Your task to perform on an android device: Go to CNN.com Image 0: 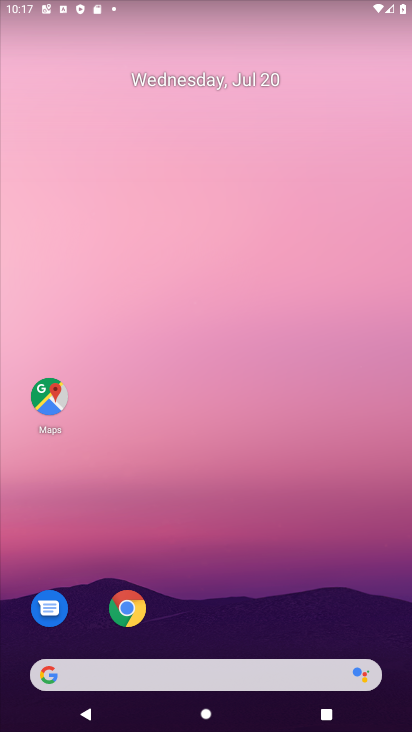
Step 0: drag from (283, 249) to (331, 8)
Your task to perform on an android device: Go to CNN.com Image 1: 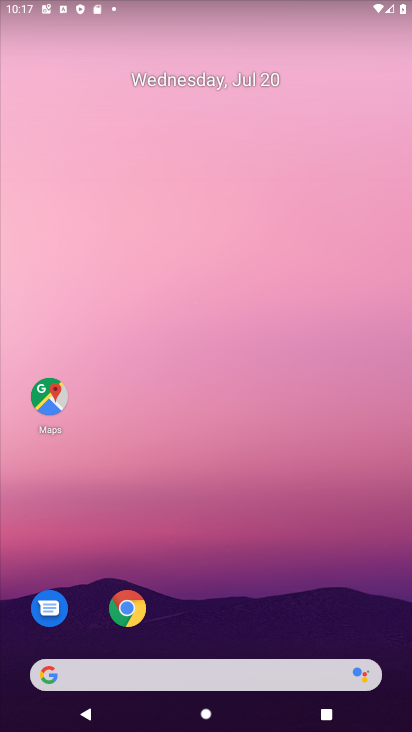
Step 1: drag from (282, 610) to (275, 41)
Your task to perform on an android device: Go to CNN.com Image 2: 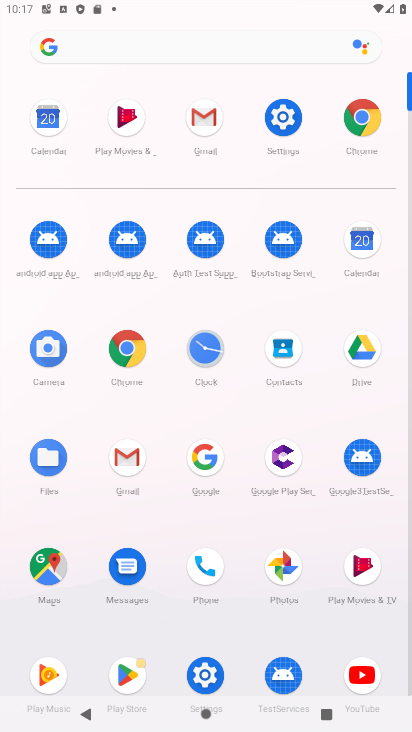
Step 2: click (118, 348)
Your task to perform on an android device: Go to CNN.com Image 3: 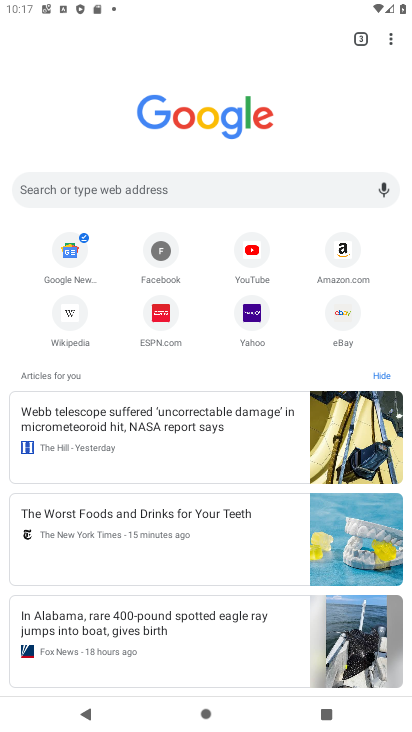
Step 3: click (147, 188)
Your task to perform on an android device: Go to CNN.com Image 4: 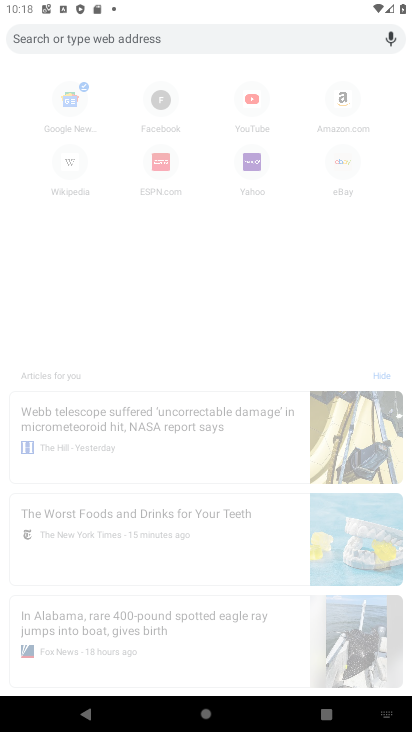
Step 4: type "CNN.com"
Your task to perform on an android device: Go to CNN.com Image 5: 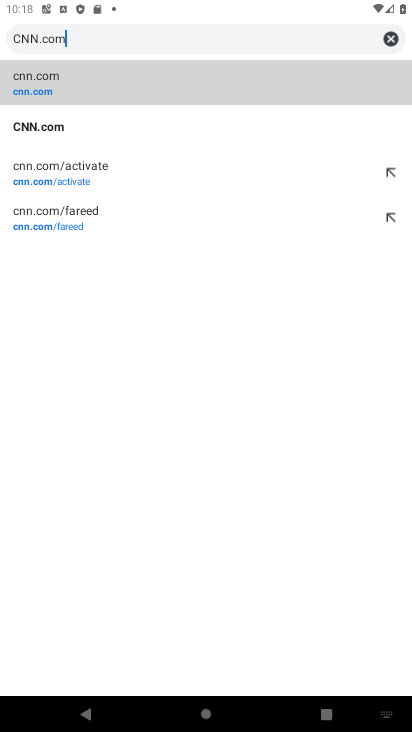
Step 5: type ""
Your task to perform on an android device: Go to CNN.com Image 6: 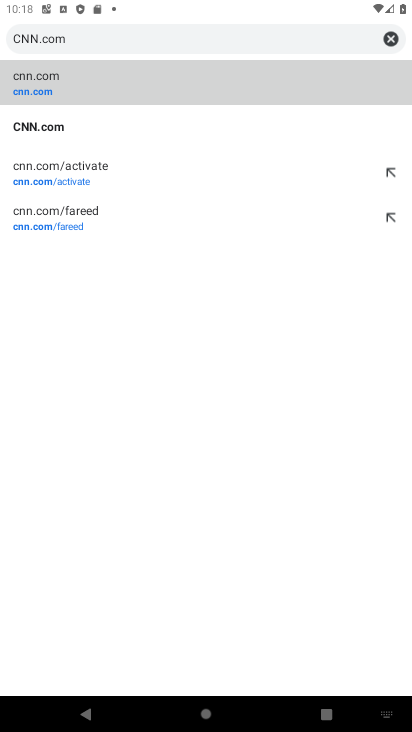
Step 6: click (116, 99)
Your task to perform on an android device: Go to CNN.com Image 7: 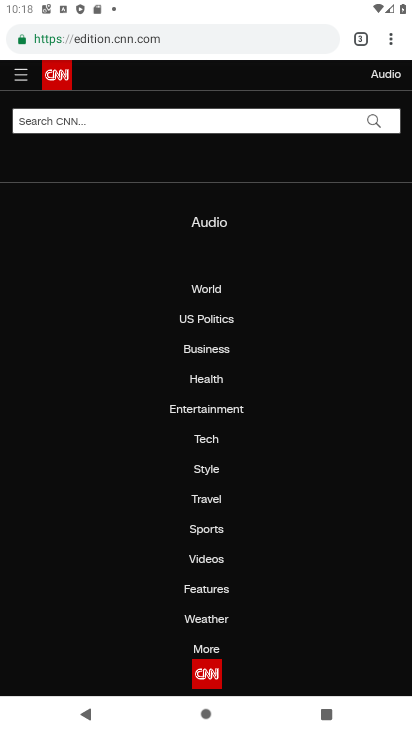
Step 7: task complete